Your task to perform on an android device: turn on airplane mode Image 0: 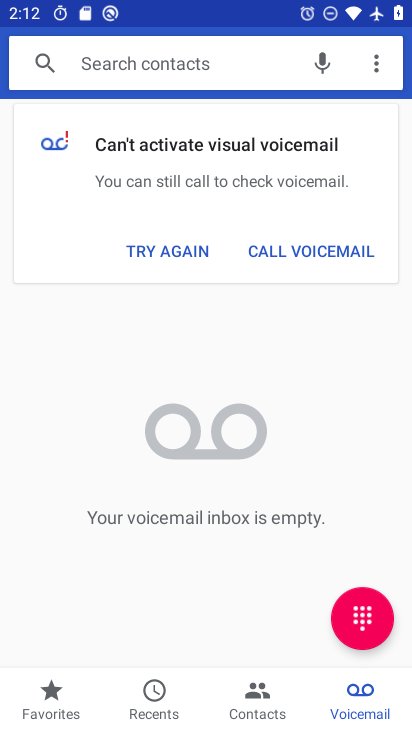
Step 0: press home button
Your task to perform on an android device: turn on airplane mode Image 1: 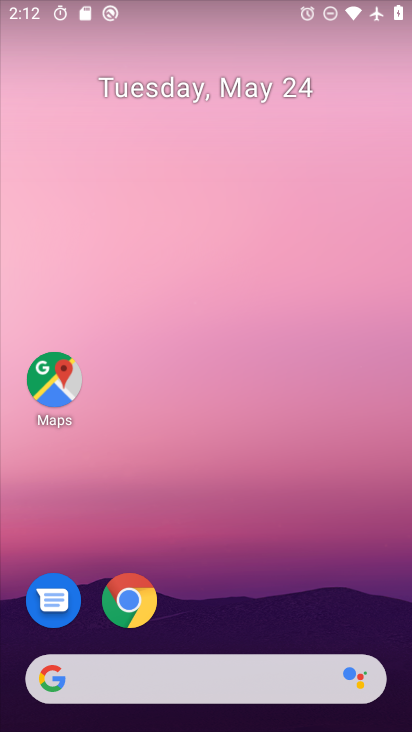
Step 1: drag from (232, 562) to (186, 111)
Your task to perform on an android device: turn on airplane mode Image 2: 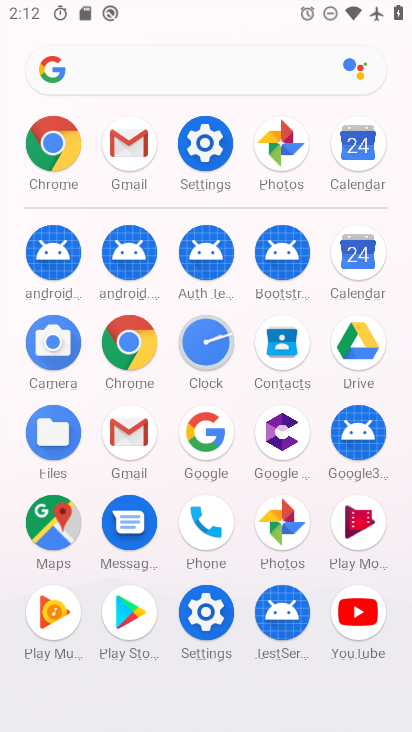
Step 2: click (209, 144)
Your task to perform on an android device: turn on airplane mode Image 3: 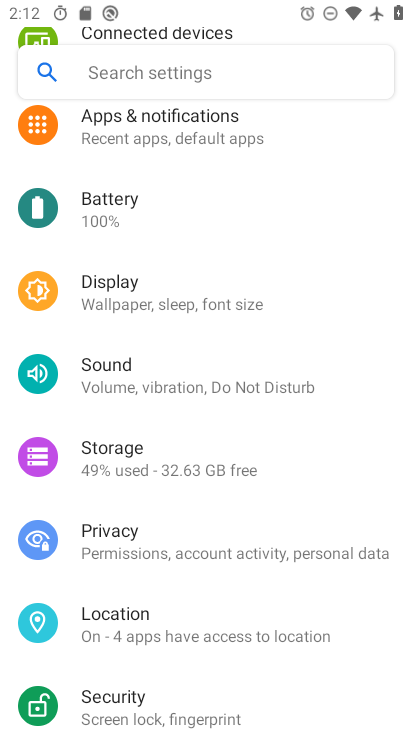
Step 3: drag from (178, 169) to (281, 671)
Your task to perform on an android device: turn on airplane mode Image 4: 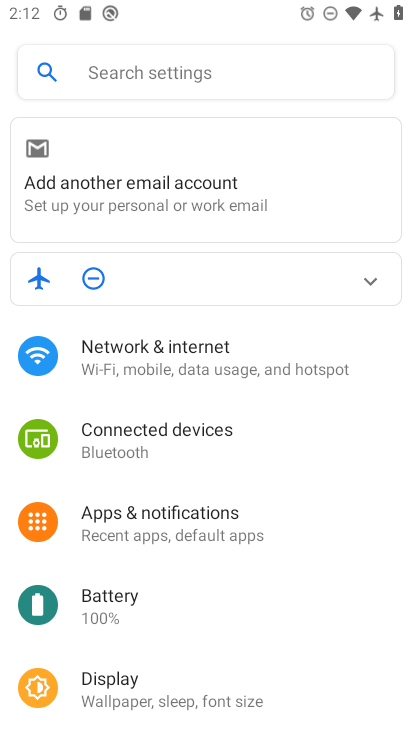
Step 4: click (201, 361)
Your task to perform on an android device: turn on airplane mode Image 5: 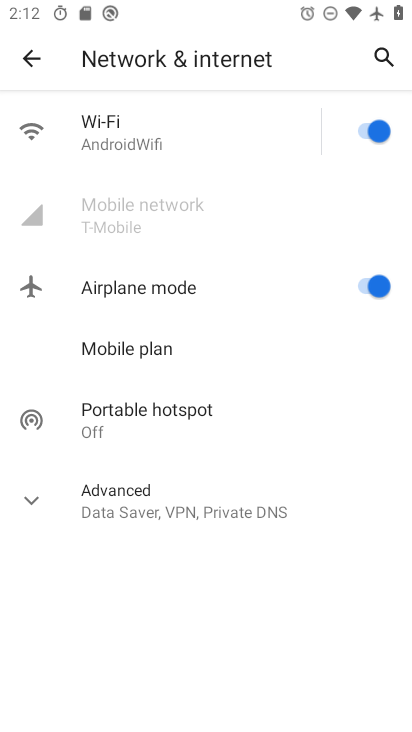
Step 5: task complete